Your task to perform on an android device: Open maps Image 0: 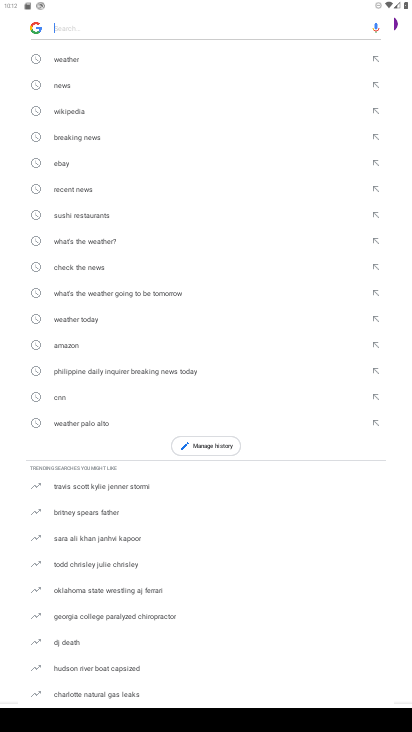
Step 0: press home button
Your task to perform on an android device: Open maps Image 1: 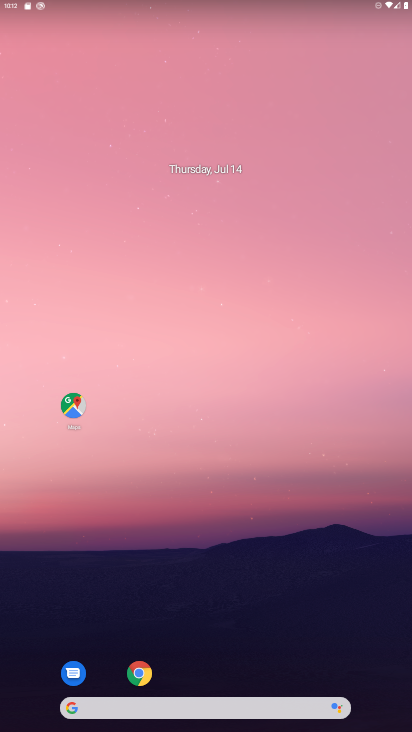
Step 1: click (68, 410)
Your task to perform on an android device: Open maps Image 2: 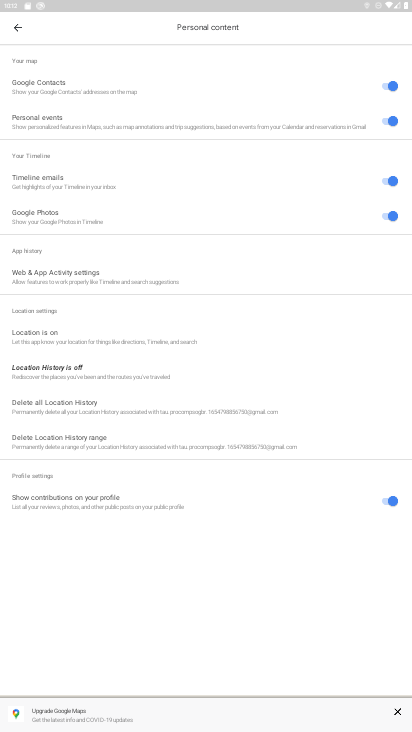
Step 2: click (16, 25)
Your task to perform on an android device: Open maps Image 3: 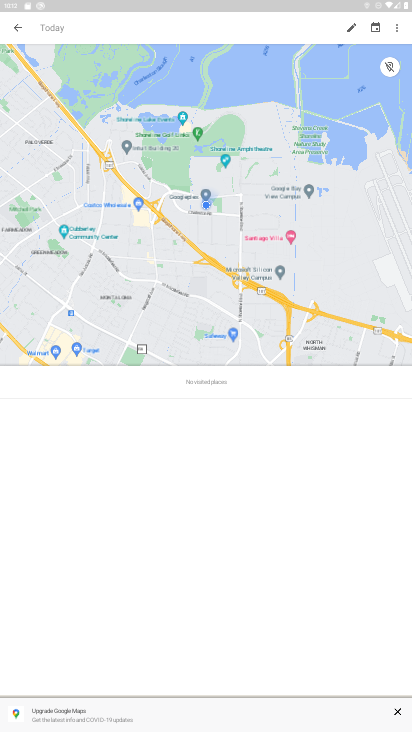
Step 3: task complete